Your task to perform on an android device: turn on bluetooth scan Image 0: 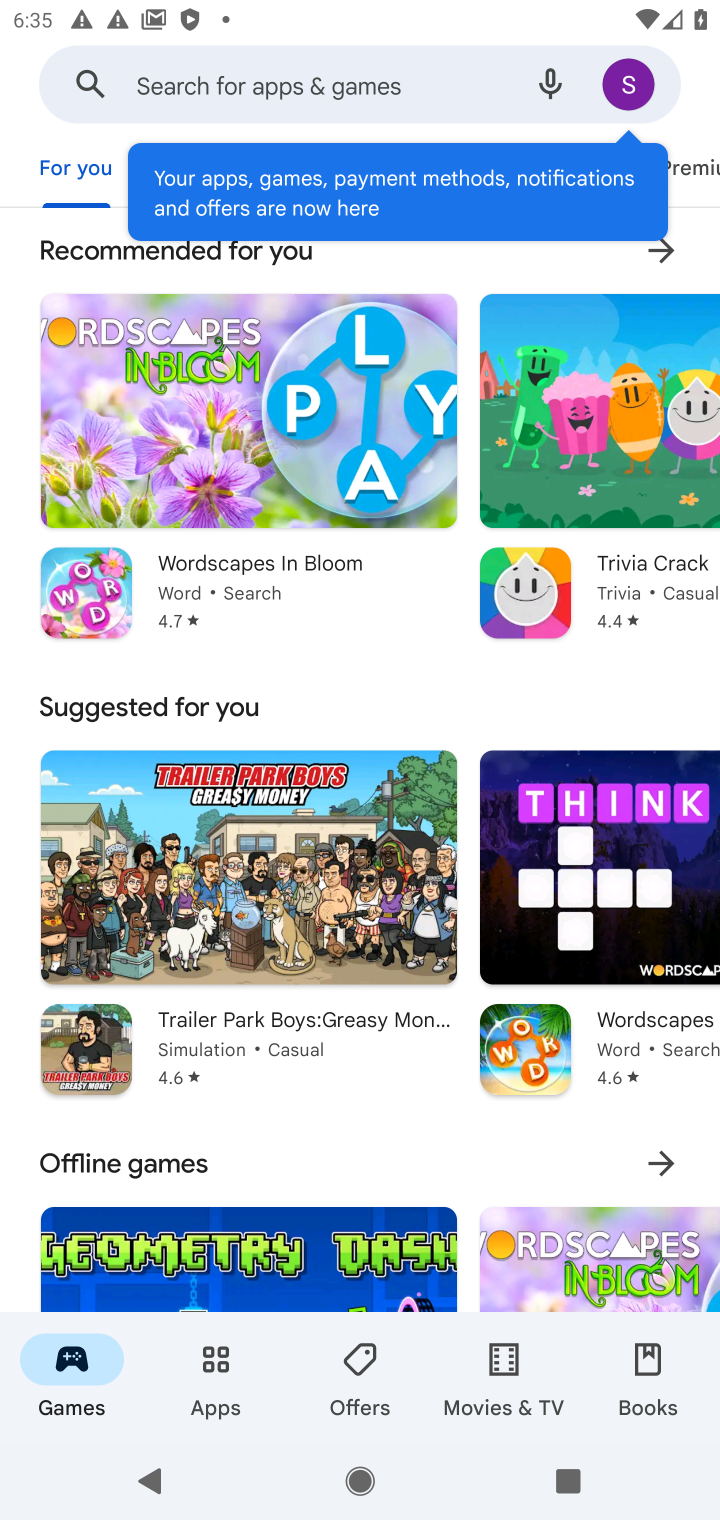
Step 0: press home button
Your task to perform on an android device: turn on bluetooth scan Image 1: 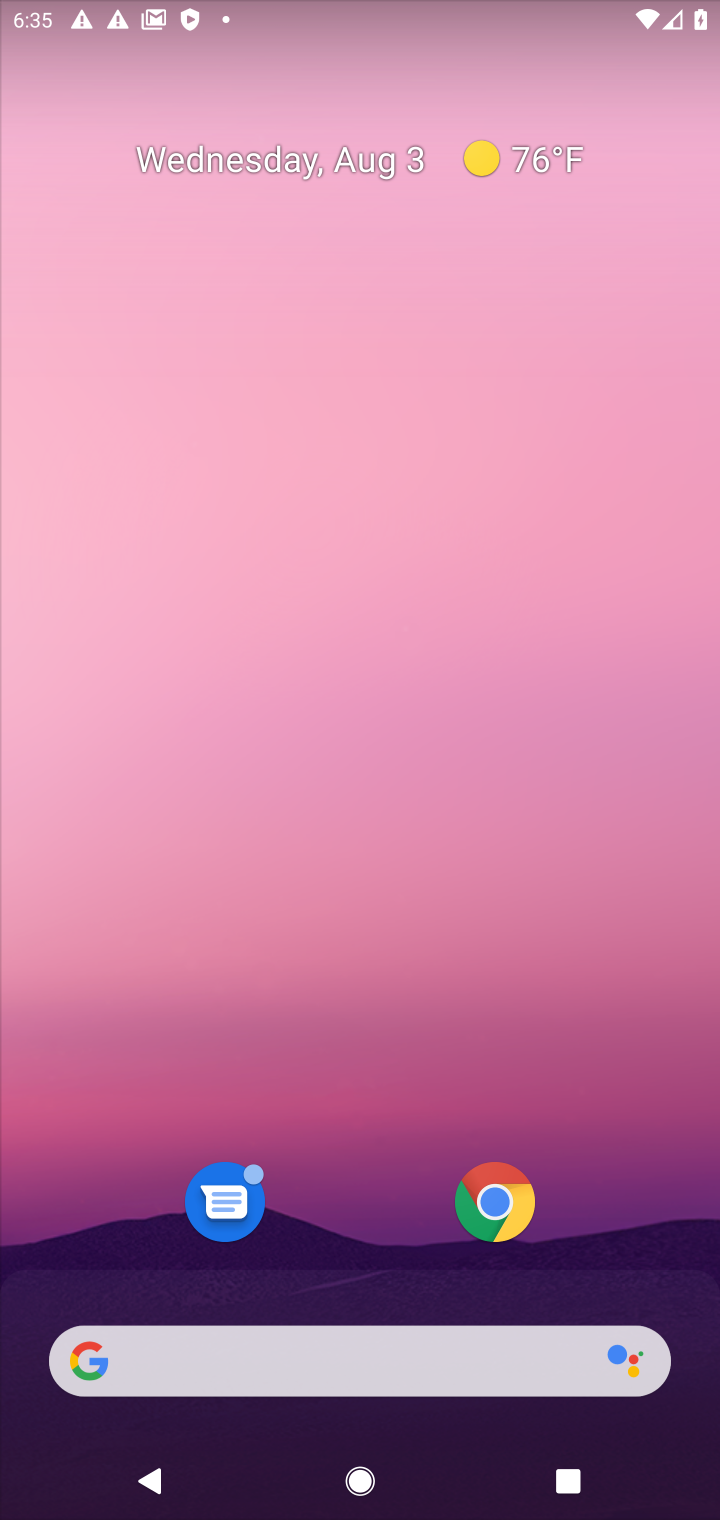
Step 1: drag from (349, 1052) to (362, 10)
Your task to perform on an android device: turn on bluetooth scan Image 2: 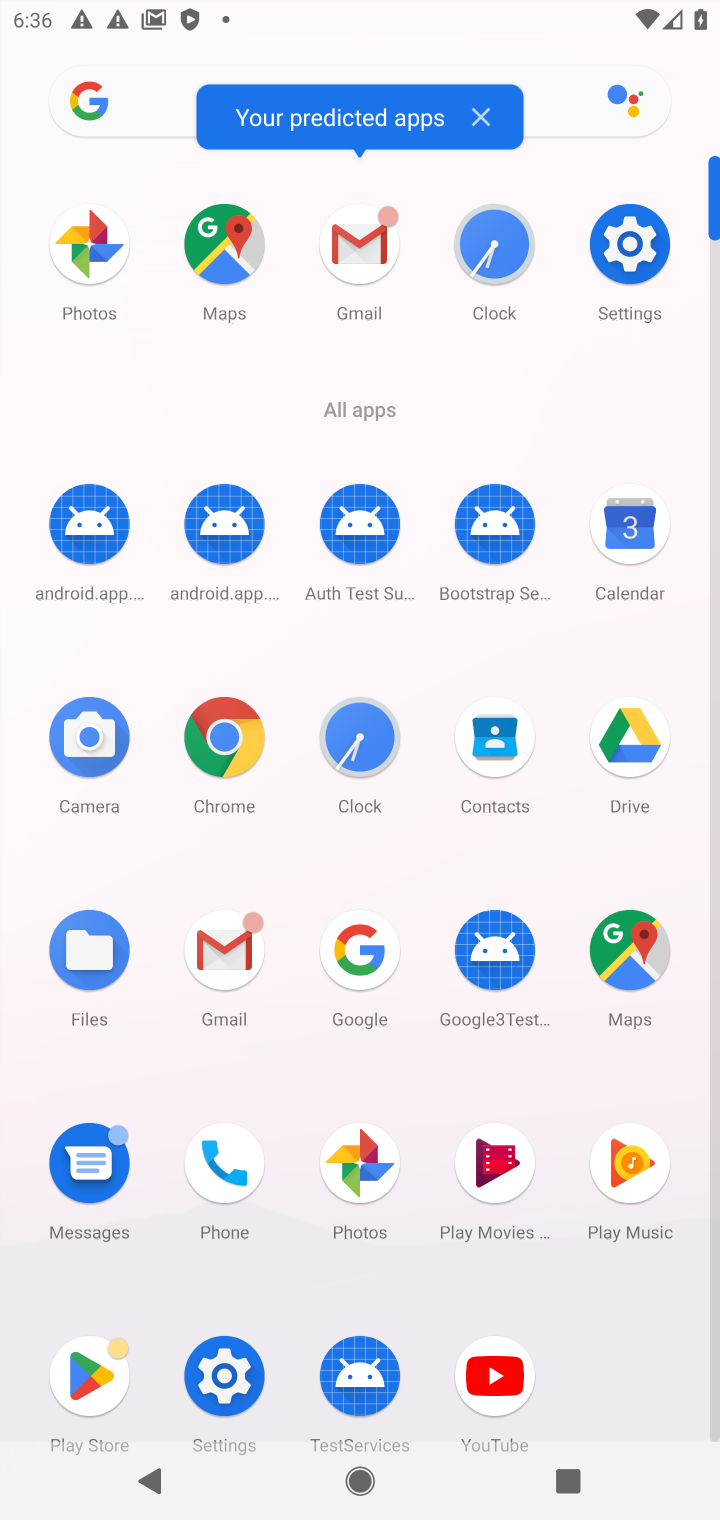
Step 2: click (631, 248)
Your task to perform on an android device: turn on bluetooth scan Image 3: 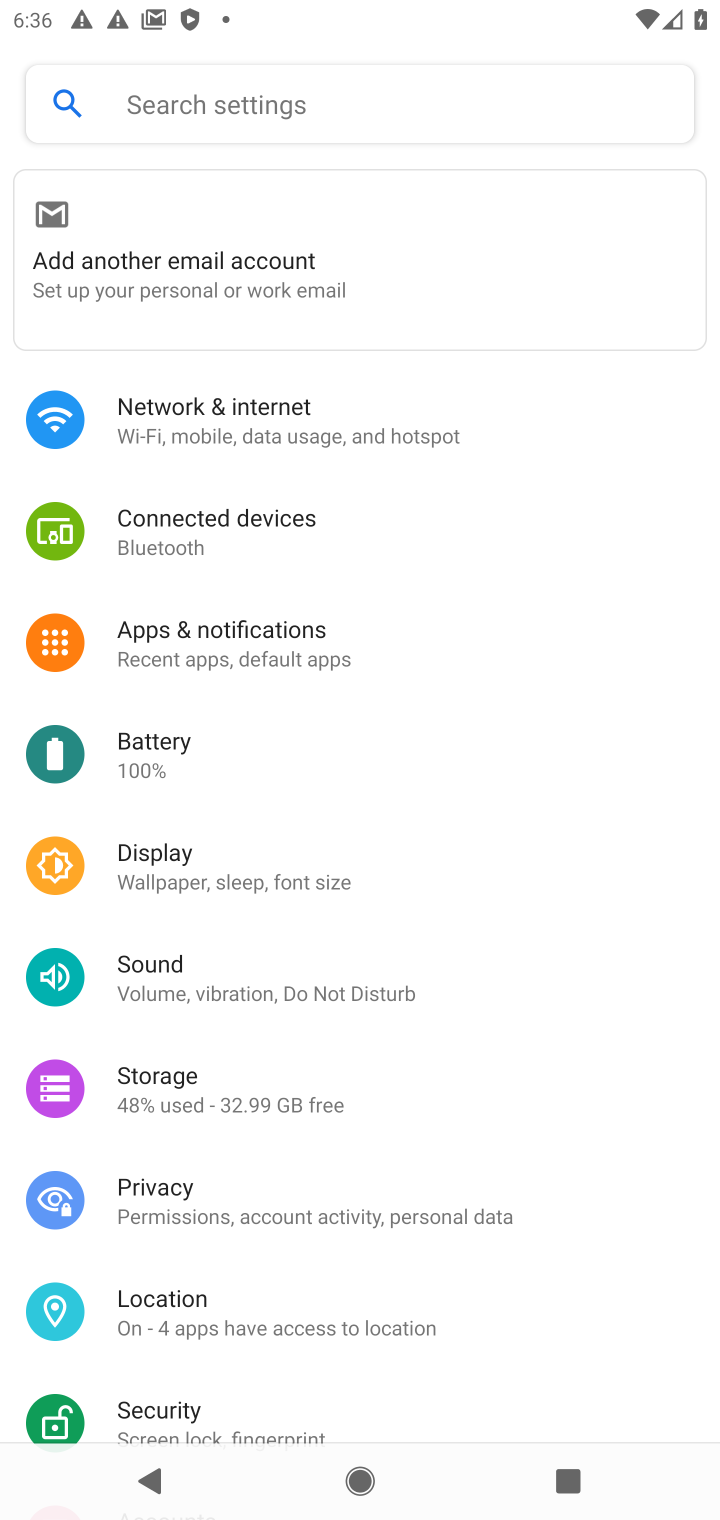
Step 3: click (154, 1302)
Your task to perform on an android device: turn on bluetooth scan Image 4: 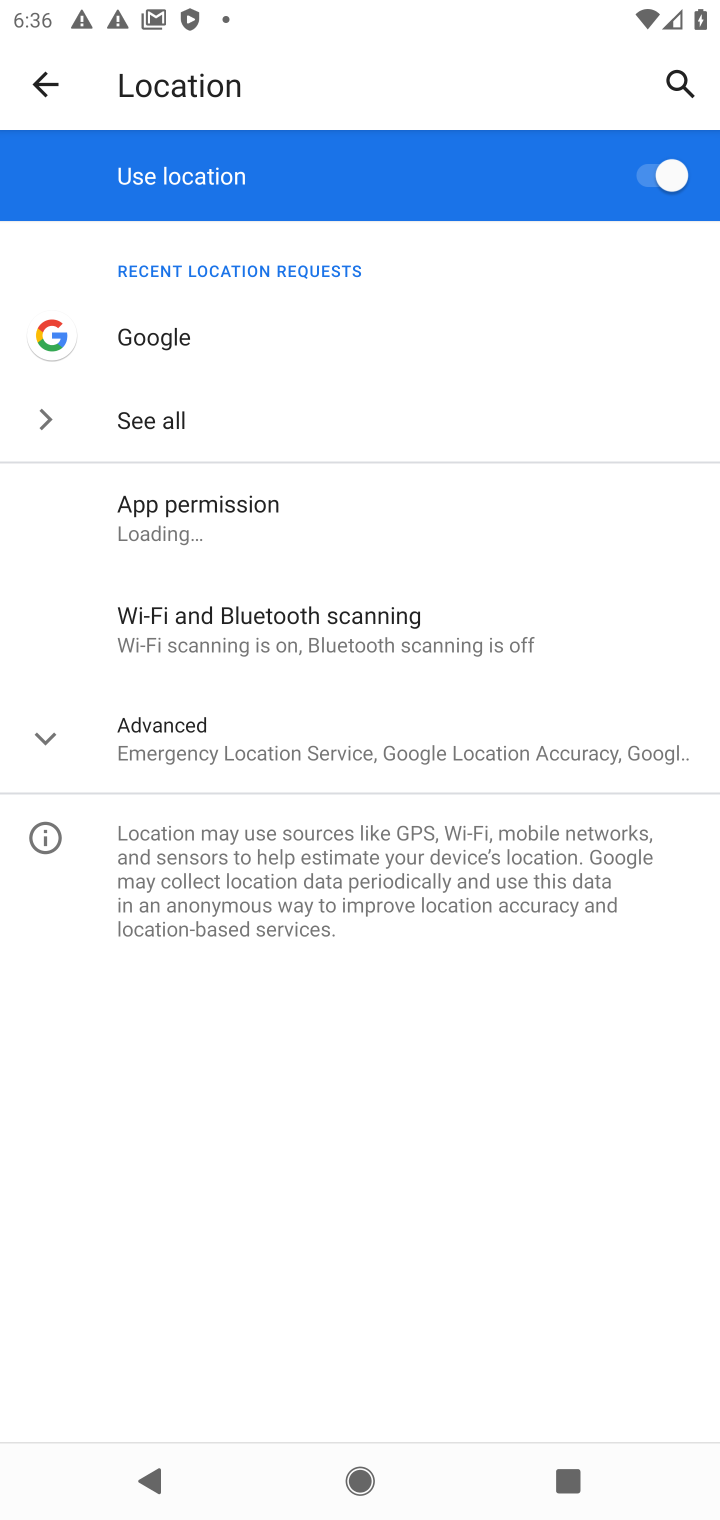
Step 4: click (198, 613)
Your task to perform on an android device: turn on bluetooth scan Image 5: 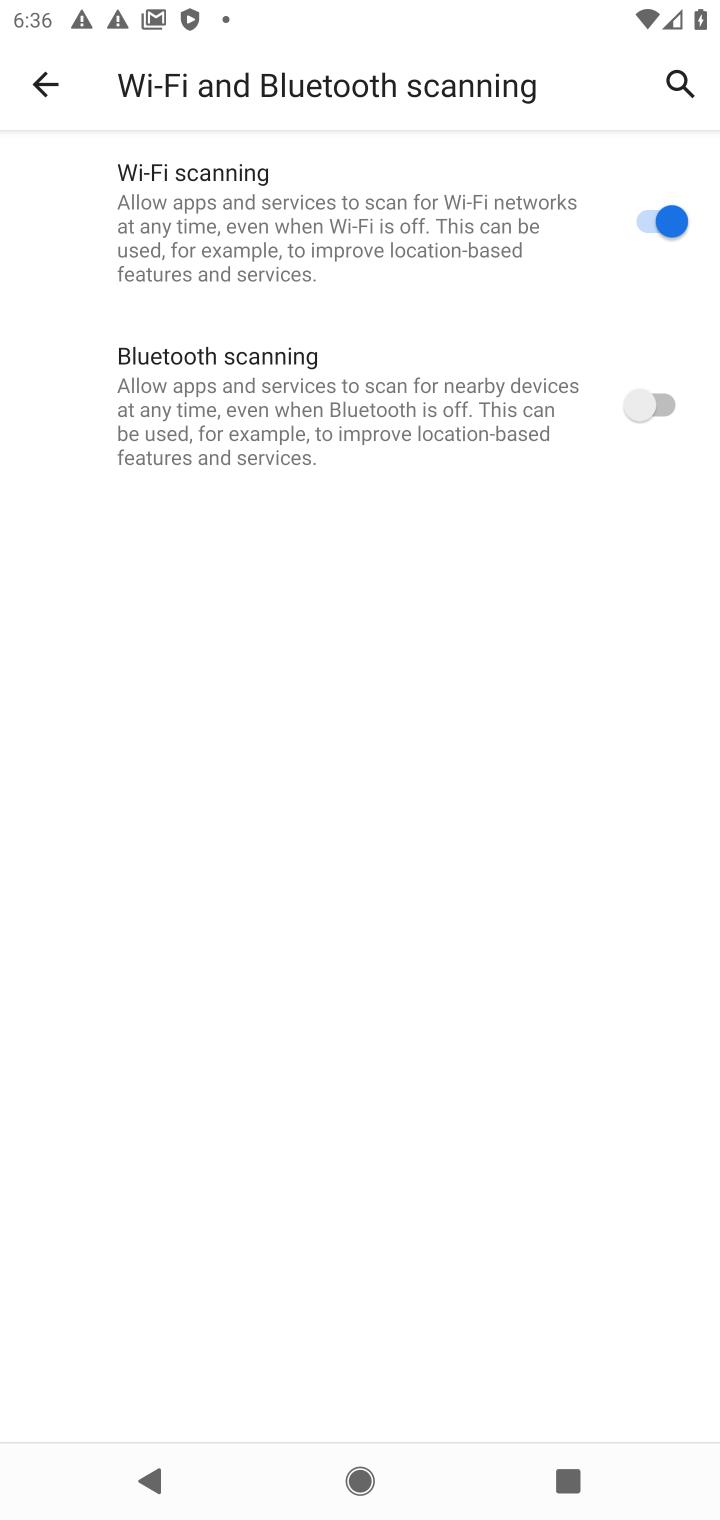
Step 5: click (648, 391)
Your task to perform on an android device: turn on bluetooth scan Image 6: 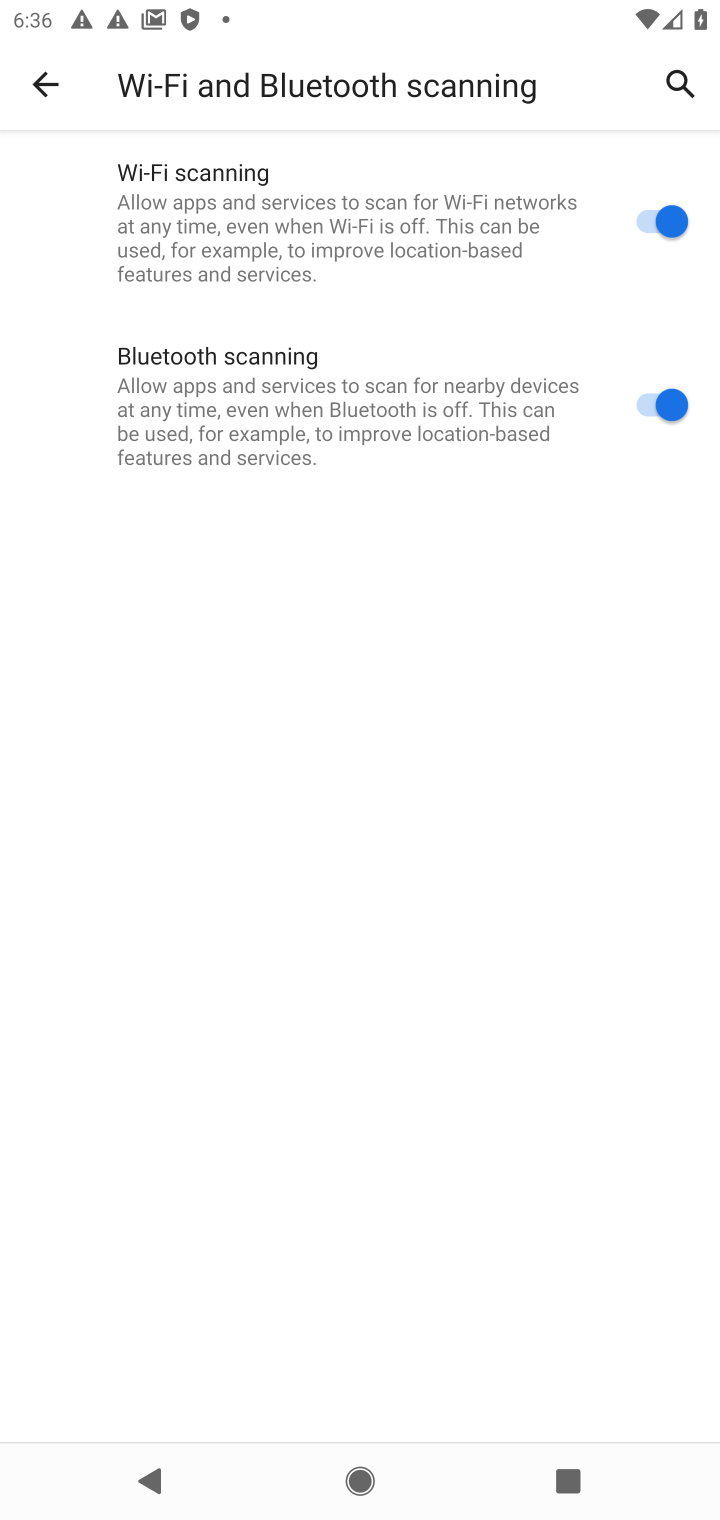
Step 6: task complete